Your task to perform on an android device: Play the last video I watched on Youtube Image 0: 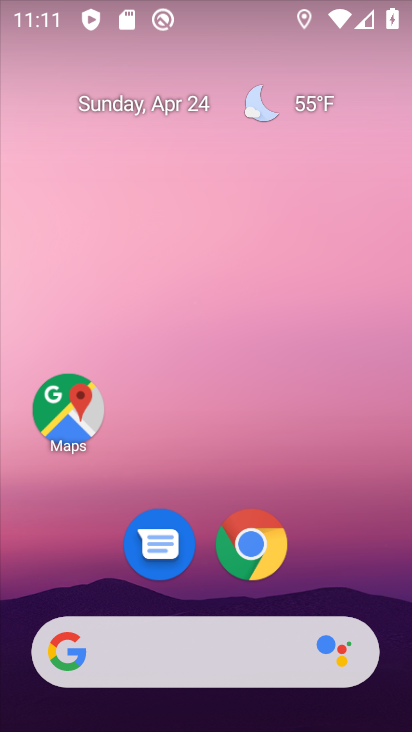
Step 0: drag from (326, 585) to (276, 99)
Your task to perform on an android device: Play the last video I watched on Youtube Image 1: 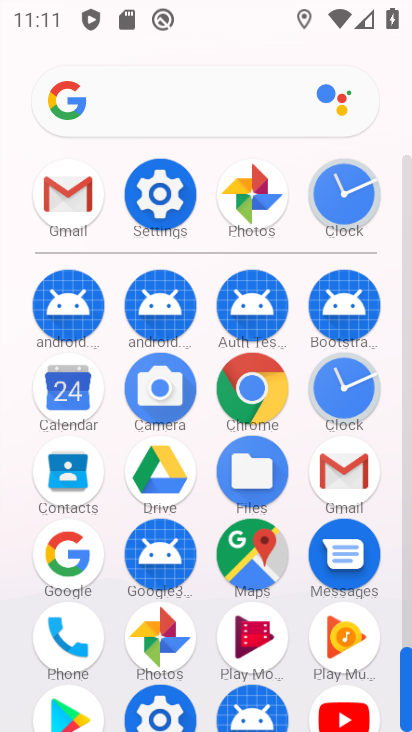
Step 1: click (344, 704)
Your task to perform on an android device: Play the last video I watched on Youtube Image 2: 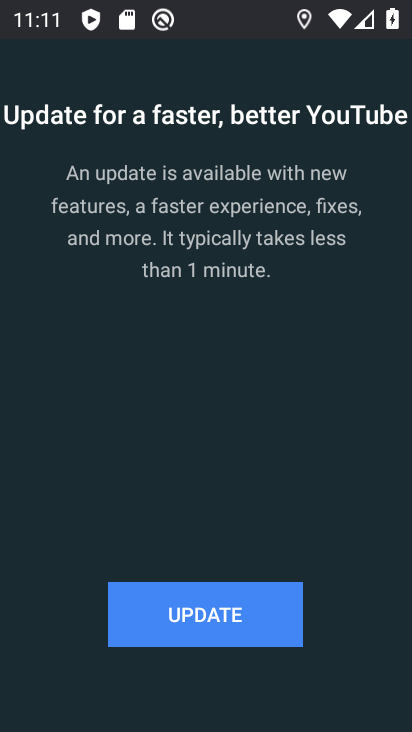
Step 2: click (223, 617)
Your task to perform on an android device: Play the last video I watched on Youtube Image 3: 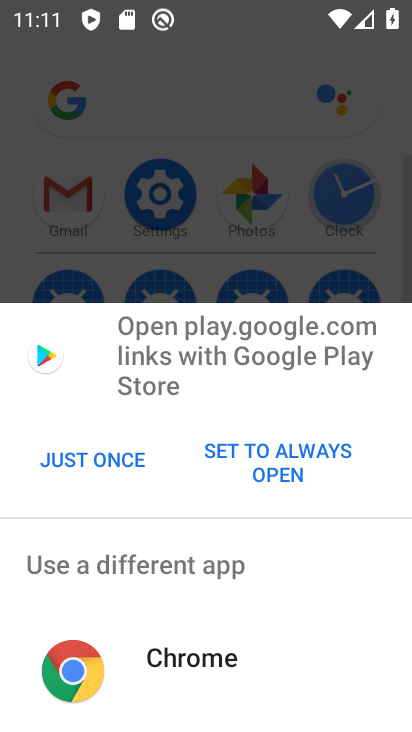
Step 3: click (103, 459)
Your task to perform on an android device: Play the last video I watched on Youtube Image 4: 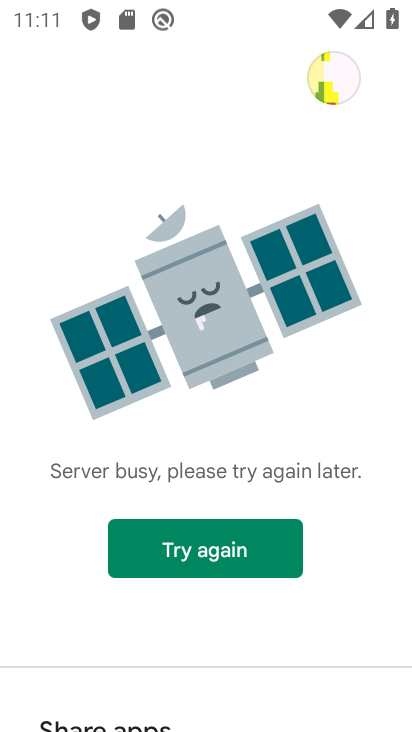
Step 4: click (218, 565)
Your task to perform on an android device: Play the last video I watched on Youtube Image 5: 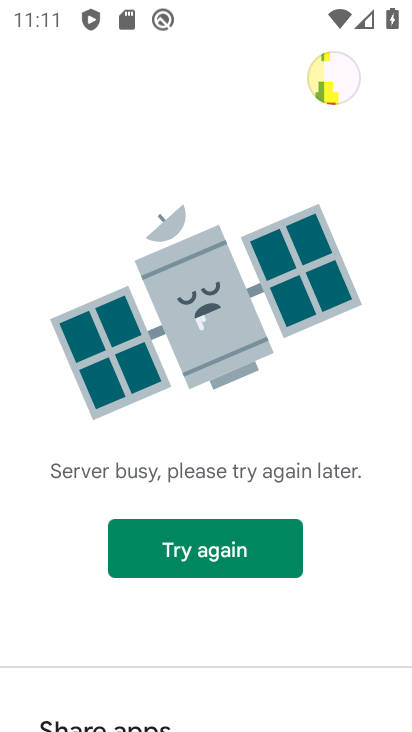
Step 5: task complete